Your task to perform on an android device: turn vacation reply on in the gmail app Image 0: 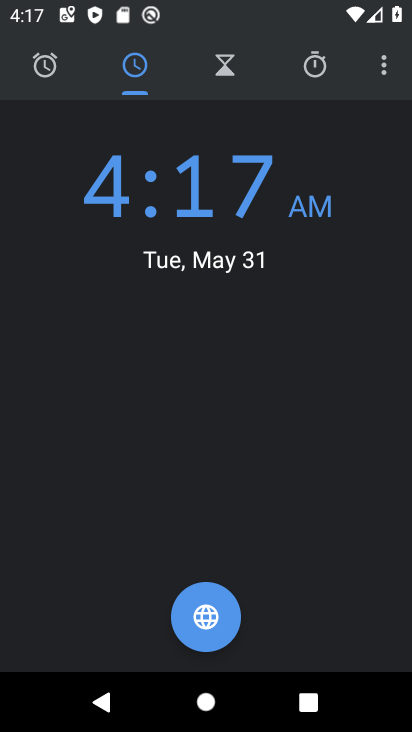
Step 0: press back button
Your task to perform on an android device: turn vacation reply on in the gmail app Image 1: 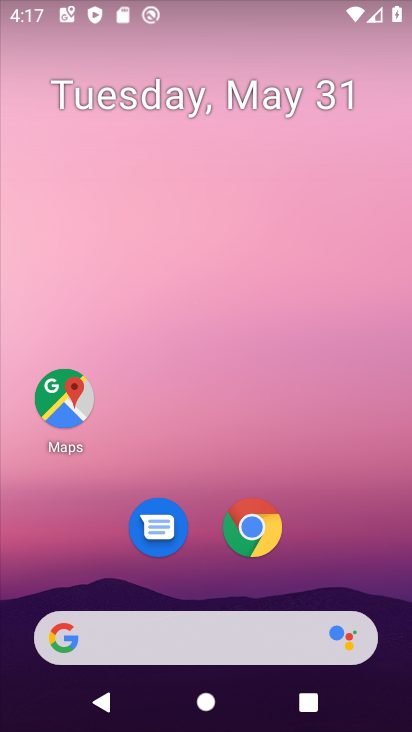
Step 1: drag from (376, 541) to (252, 17)
Your task to perform on an android device: turn vacation reply on in the gmail app Image 2: 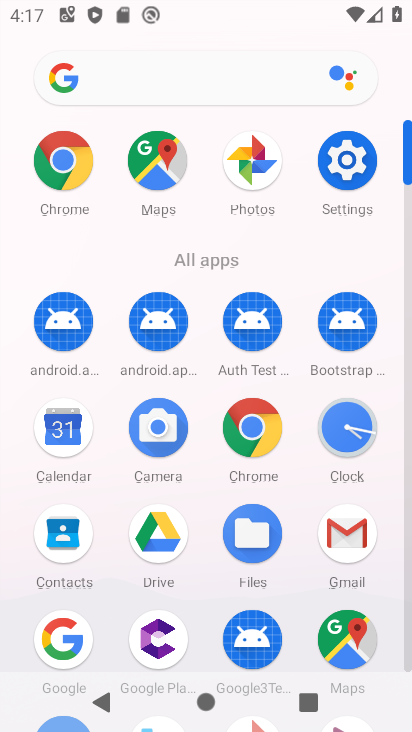
Step 2: drag from (12, 438) to (12, 215)
Your task to perform on an android device: turn vacation reply on in the gmail app Image 3: 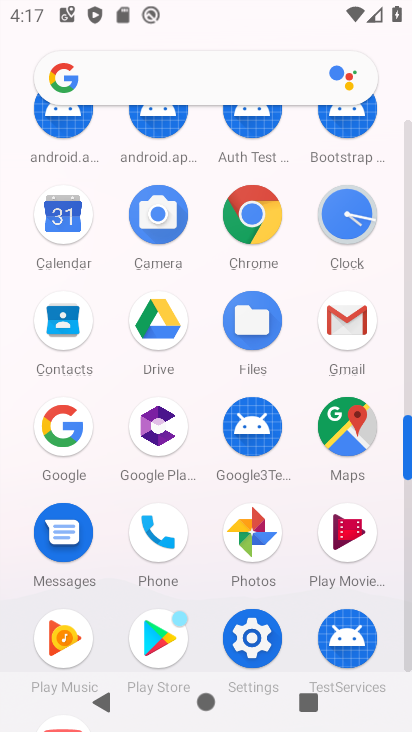
Step 3: click (344, 313)
Your task to perform on an android device: turn vacation reply on in the gmail app Image 4: 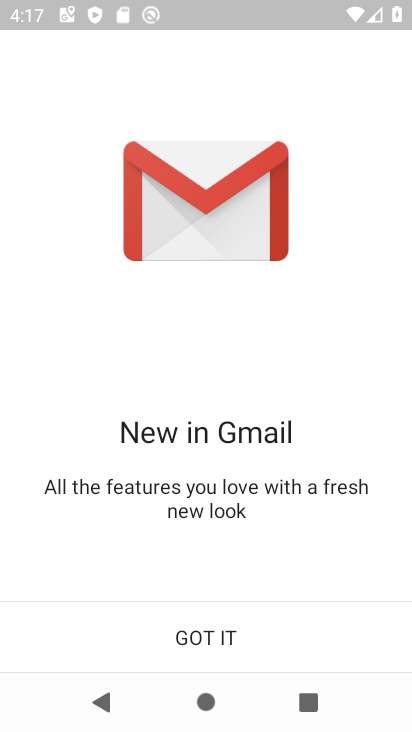
Step 4: click (241, 621)
Your task to perform on an android device: turn vacation reply on in the gmail app Image 5: 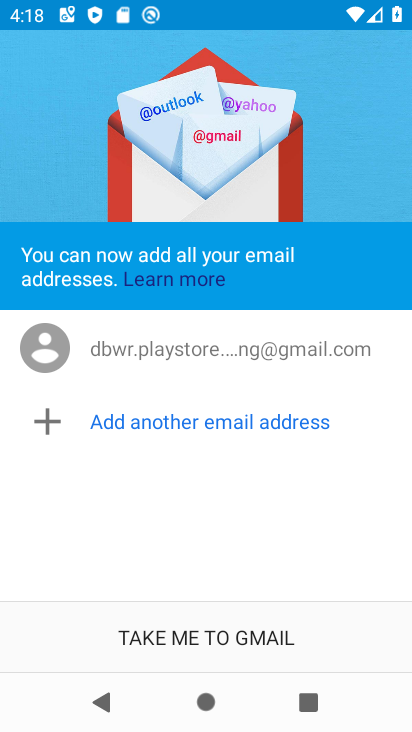
Step 5: click (236, 624)
Your task to perform on an android device: turn vacation reply on in the gmail app Image 6: 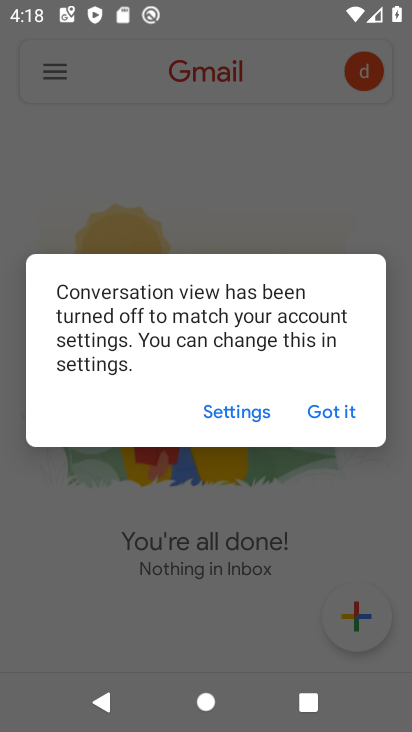
Step 6: click (325, 414)
Your task to perform on an android device: turn vacation reply on in the gmail app Image 7: 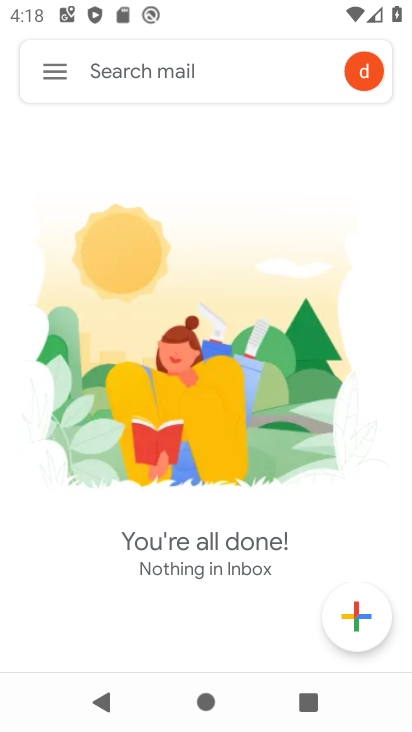
Step 7: click (47, 62)
Your task to perform on an android device: turn vacation reply on in the gmail app Image 8: 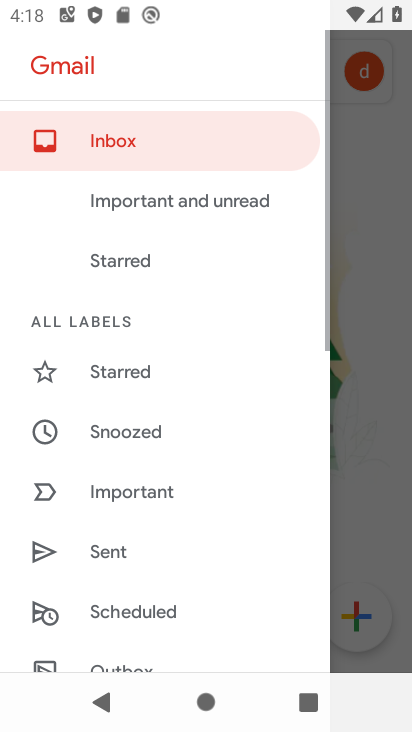
Step 8: drag from (188, 545) to (202, 177)
Your task to perform on an android device: turn vacation reply on in the gmail app Image 9: 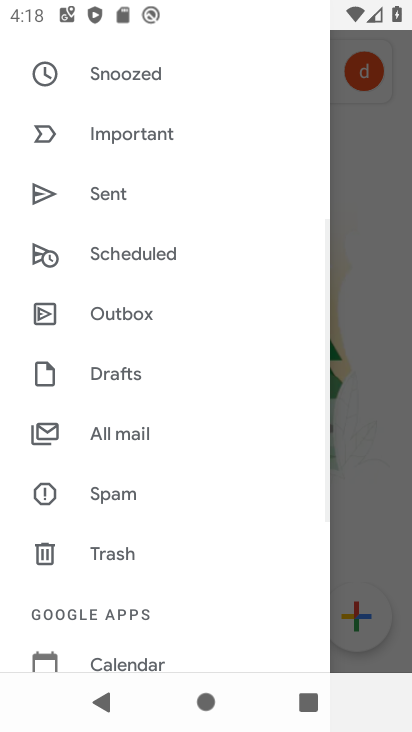
Step 9: drag from (217, 585) to (212, 182)
Your task to perform on an android device: turn vacation reply on in the gmail app Image 10: 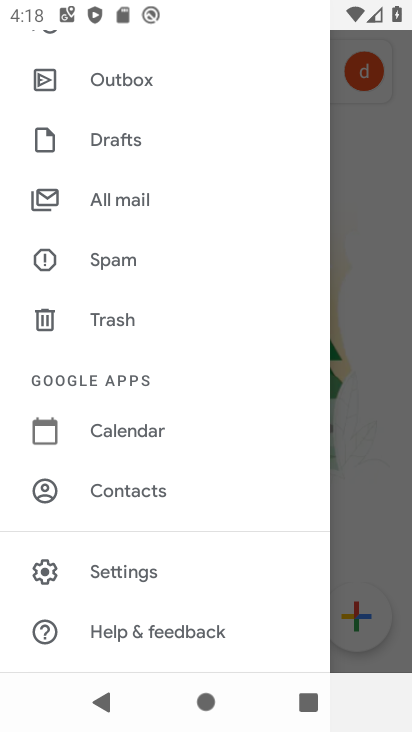
Step 10: drag from (203, 551) to (201, 152)
Your task to perform on an android device: turn vacation reply on in the gmail app Image 11: 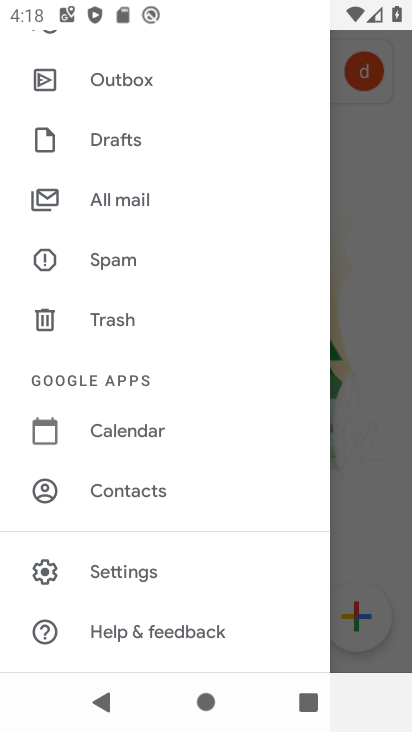
Step 11: click (130, 568)
Your task to perform on an android device: turn vacation reply on in the gmail app Image 12: 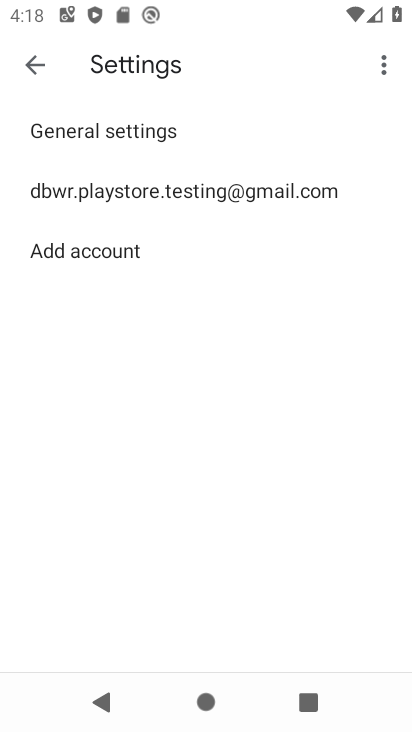
Step 12: click (122, 180)
Your task to perform on an android device: turn vacation reply on in the gmail app Image 13: 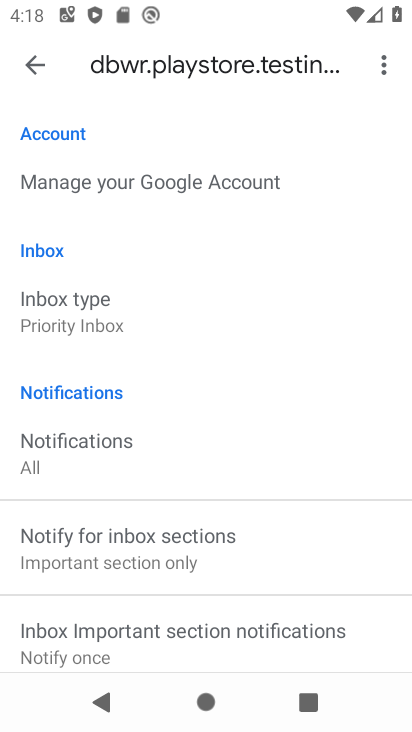
Step 13: task complete